Your task to perform on an android device: Go to CNN.com Image 0: 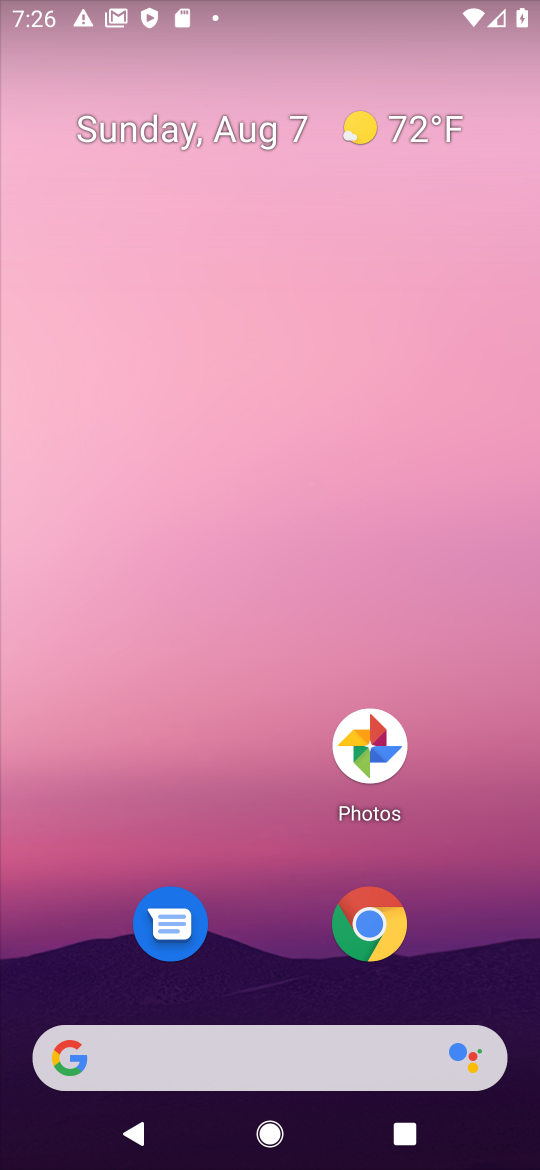
Step 0: drag from (286, 1018) to (140, 264)
Your task to perform on an android device: Go to CNN.com Image 1: 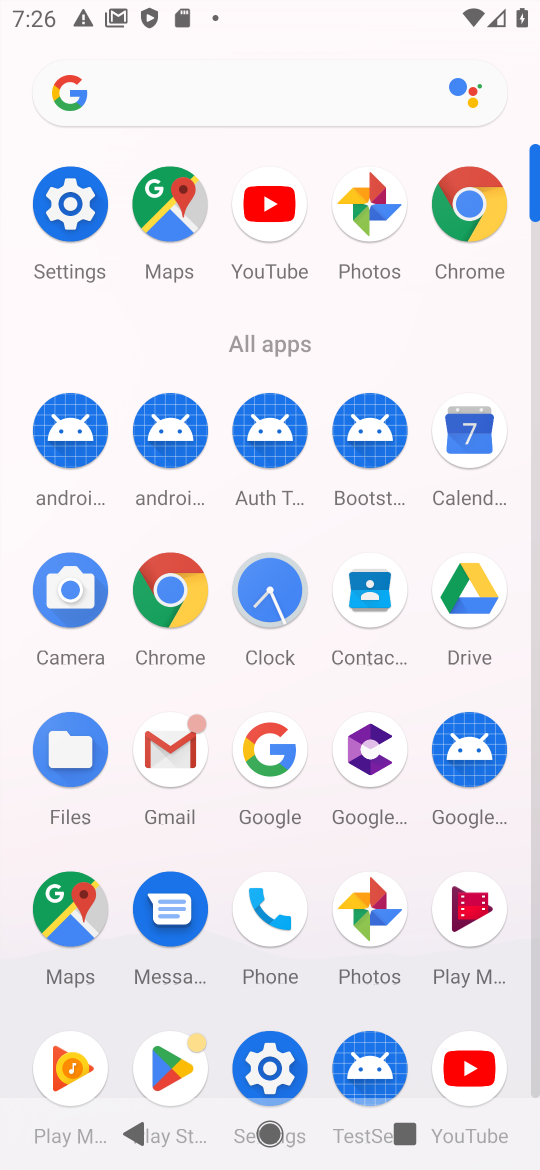
Step 1: click (479, 227)
Your task to perform on an android device: Go to CNN.com Image 2: 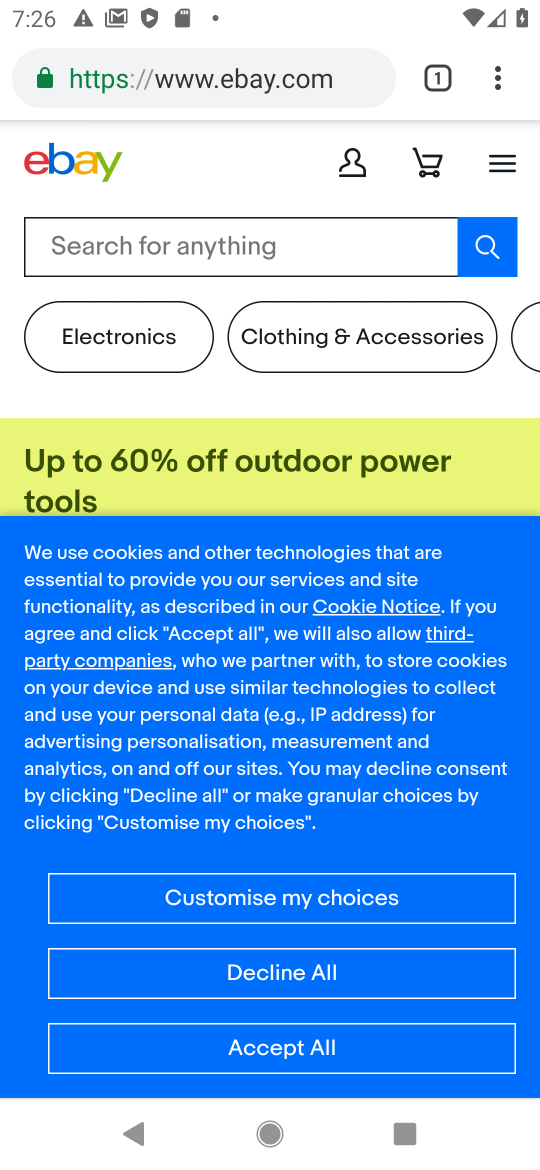
Step 2: click (505, 83)
Your task to perform on an android device: Go to CNN.com Image 3: 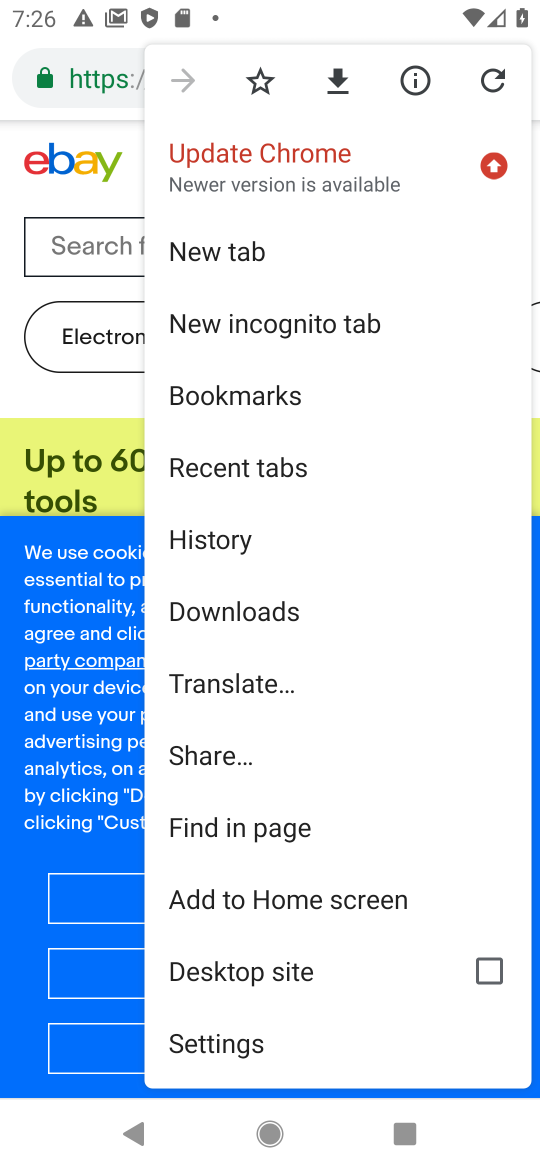
Step 3: click (251, 251)
Your task to perform on an android device: Go to CNN.com Image 4: 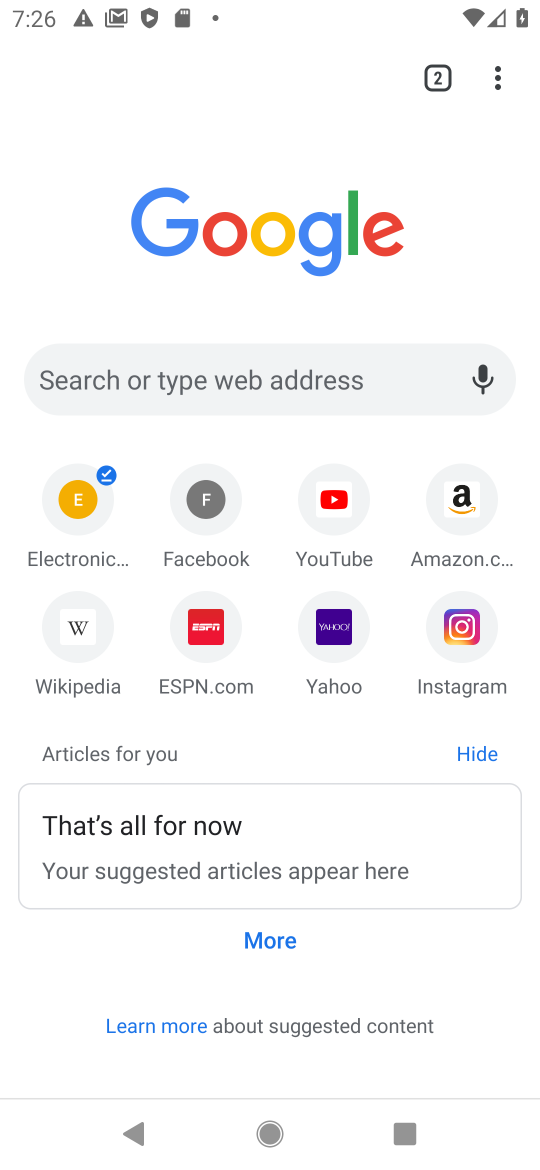
Step 4: click (139, 372)
Your task to perform on an android device: Go to CNN.com Image 5: 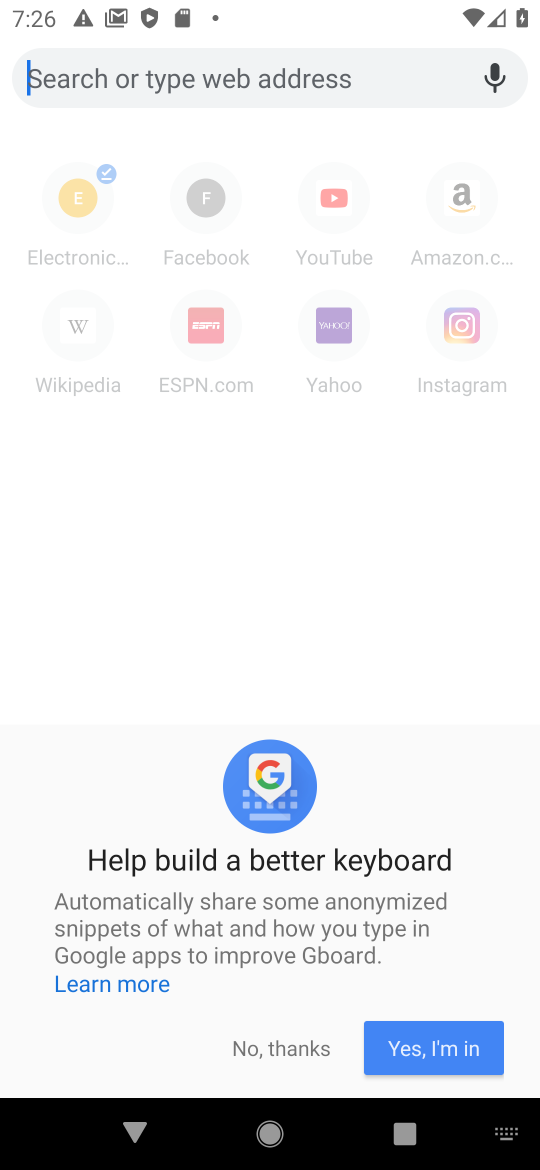
Step 5: click (242, 1034)
Your task to perform on an android device: Go to CNN.com Image 6: 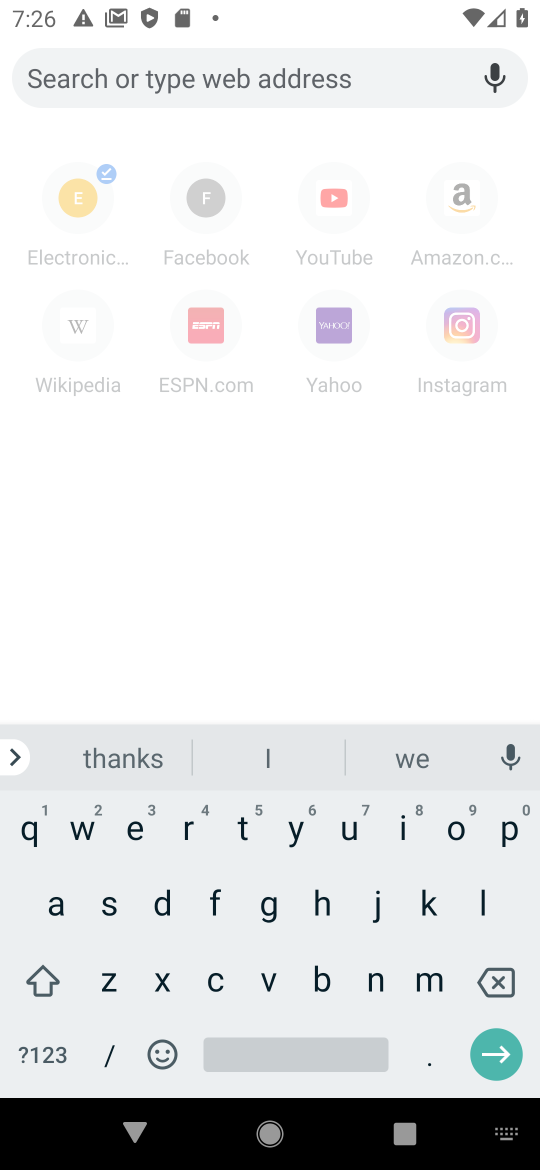
Step 6: click (199, 987)
Your task to perform on an android device: Go to CNN.com Image 7: 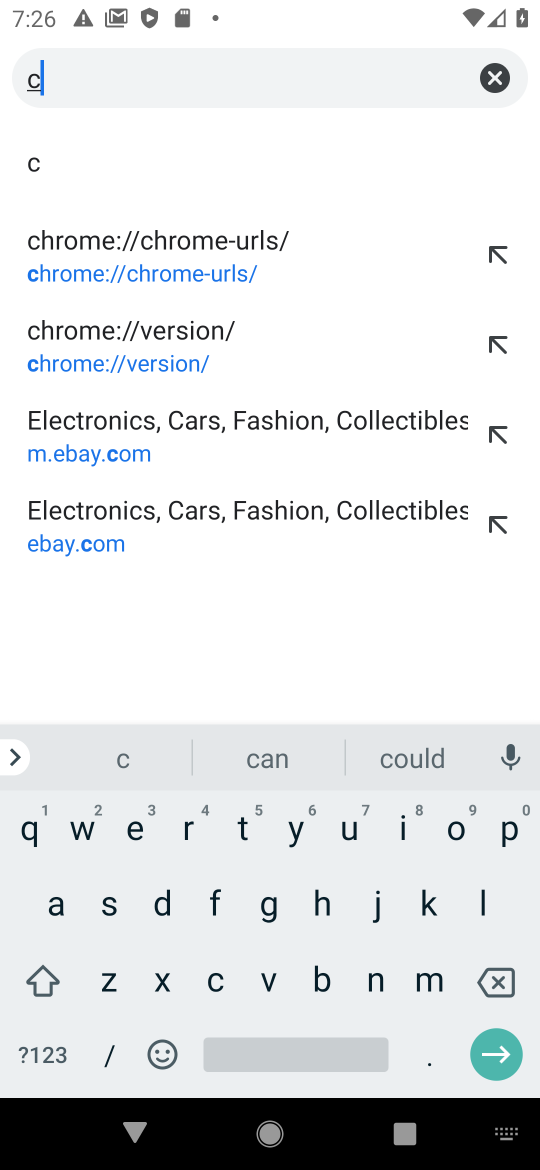
Step 7: click (361, 975)
Your task to perform on an android device: Go to CNN.com Image 8: 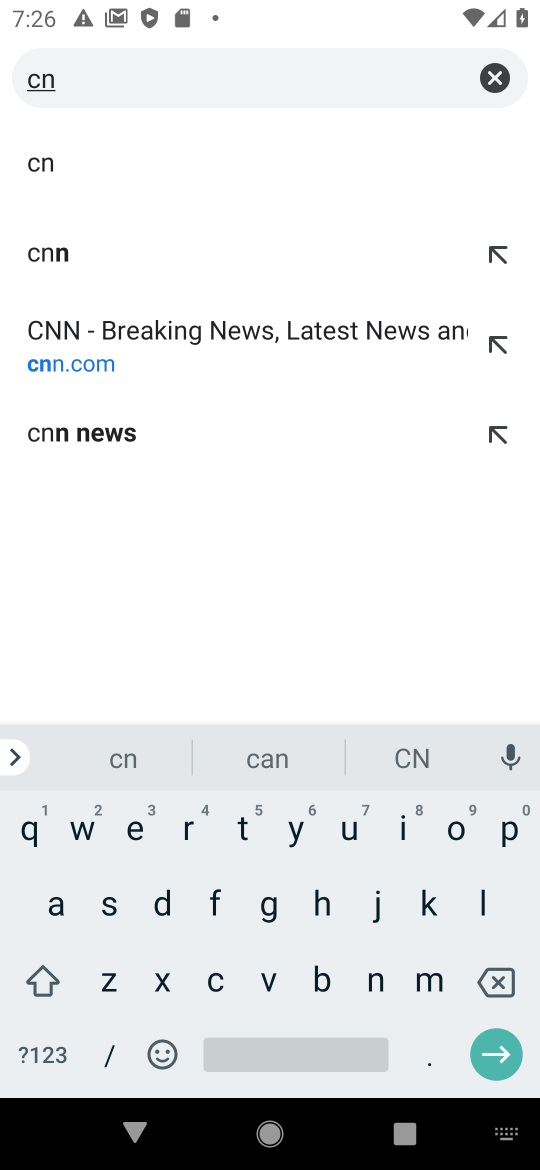
Step 8: click (361, 975)
Your task to perform on an android device: Go to CNN.com Image 9: 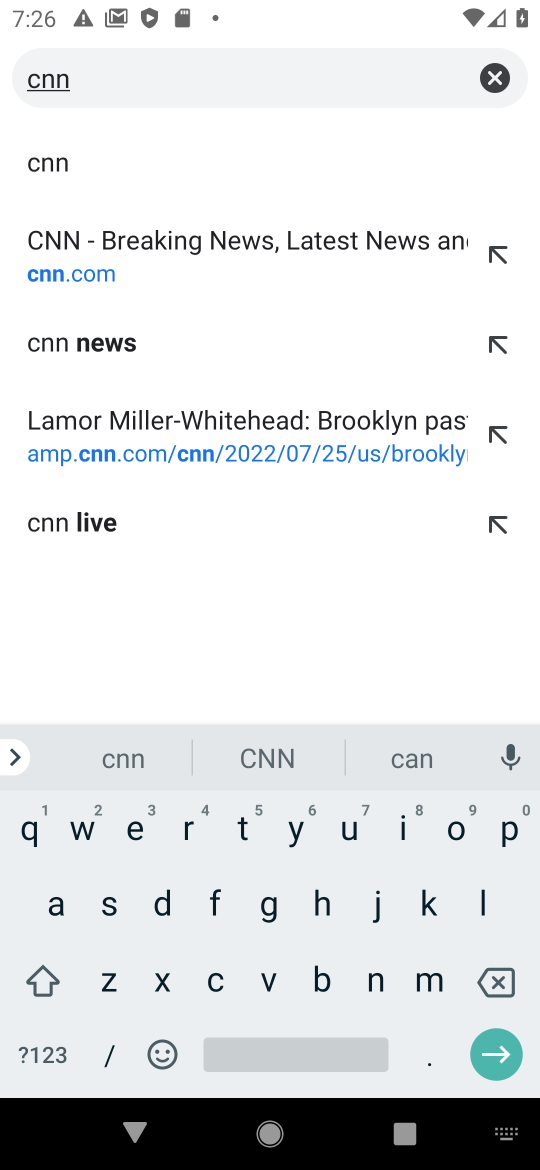
Step 9: click (106, 160)
Your task to perform on an android device: Go to CNN.com Image 10: 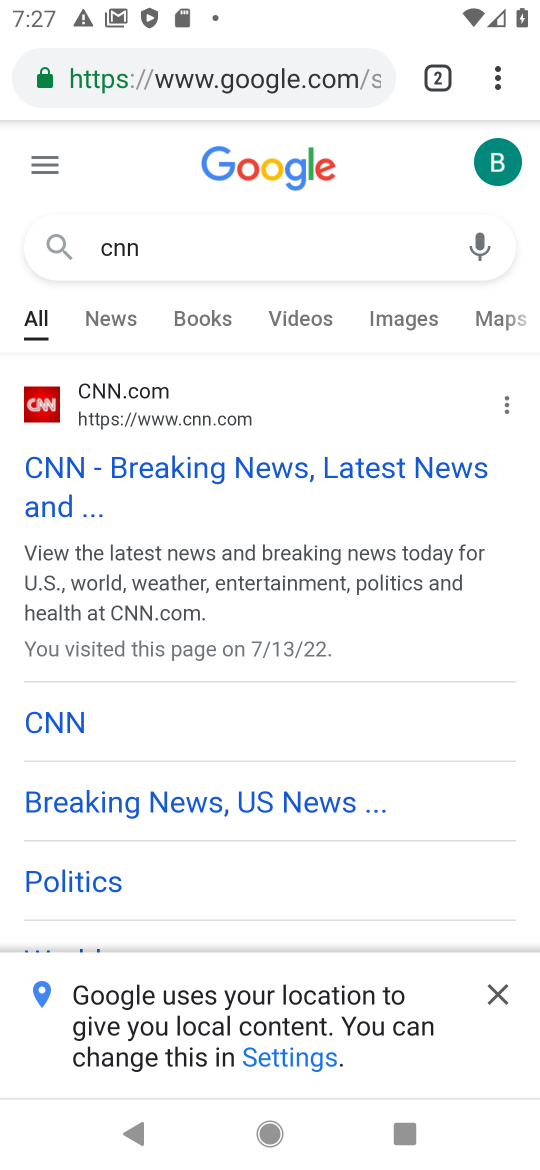
Step 10: click (142, 476)
Your task to perform on an android device: Go to CNN.com Image 11: 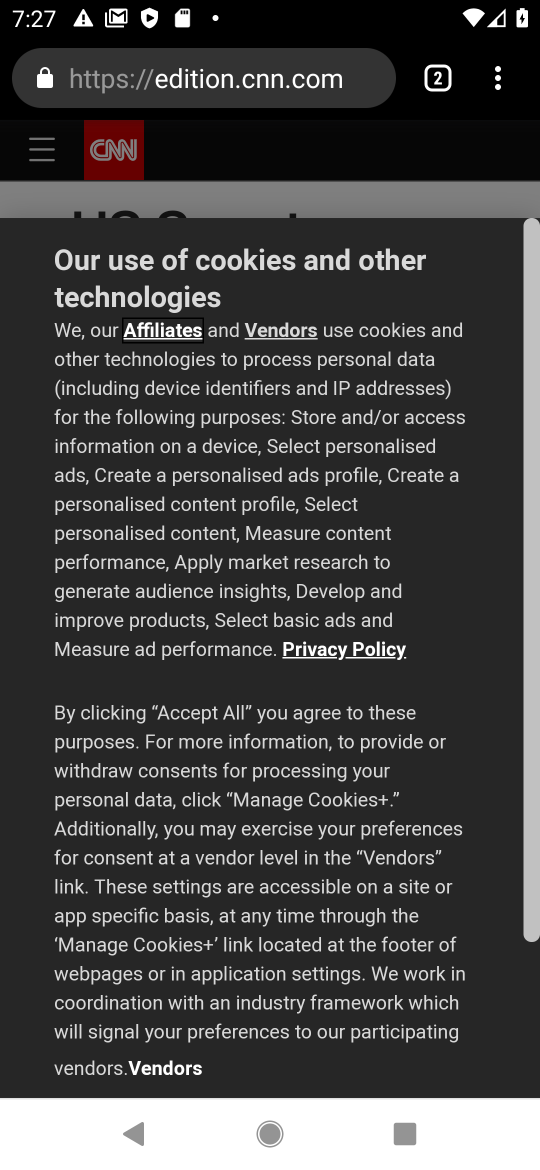
Step 11: drag from (350, 924) to (230, 392)
Your task to perform on an android device: Go to CNN.com Image 12: 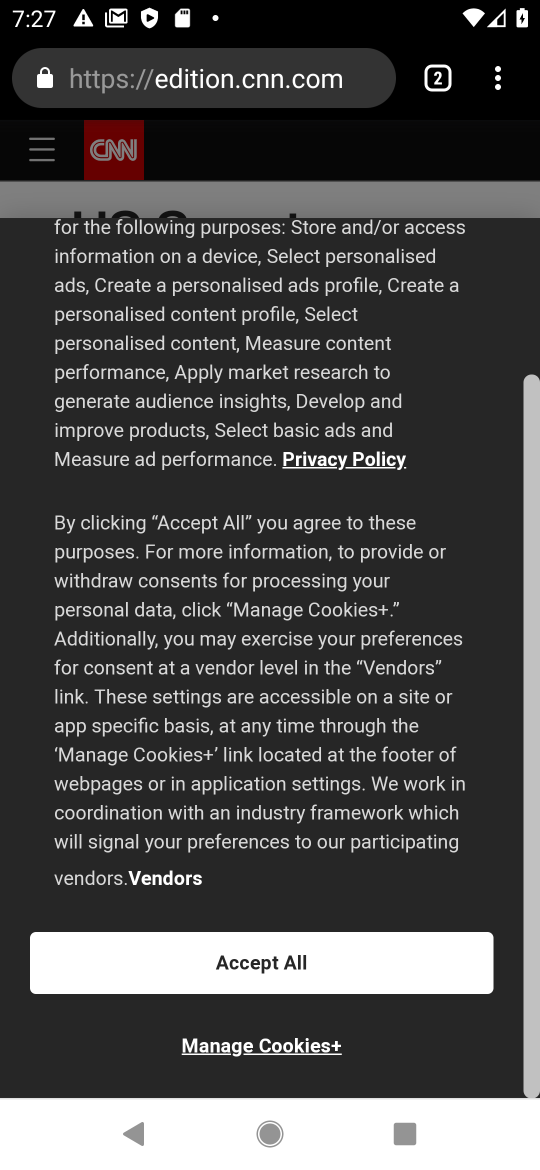
Step 12: click (314, 948)
Your task to perform on an android device: Go to CNN.com Image 13: 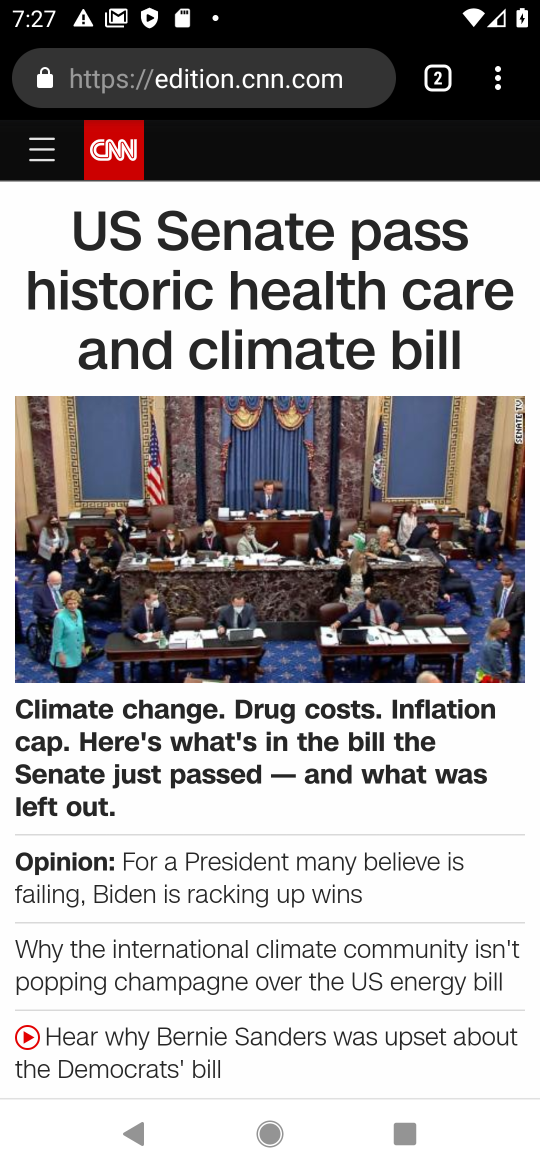
Step 13: task complete